Your task to perform on an android device: delete browsing data in the chrome app Image 0: 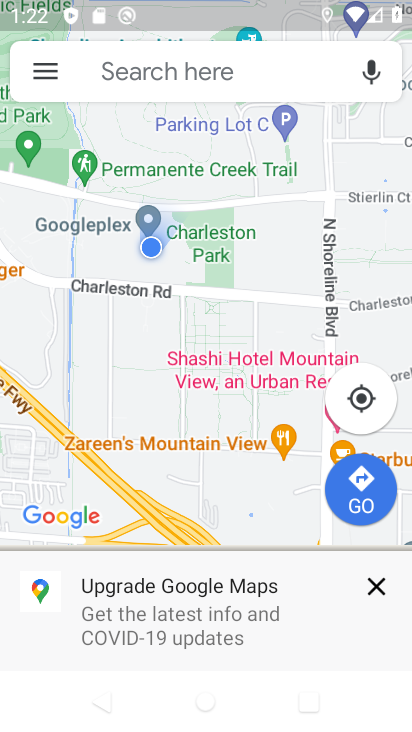
Step 0: press home button
Your task to perform on an android device: delete browsing data in the chrome app Image 1: 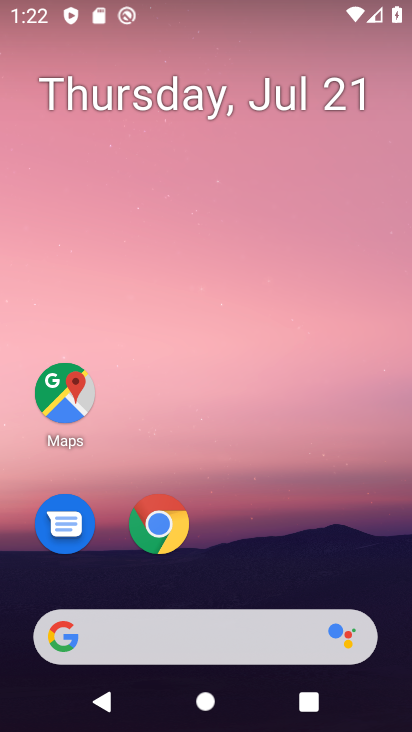
Step 1: drag from (247, 533) to (329, 69)
Your task to perform on an android device: delete browsing data in the chrome app Image 2: 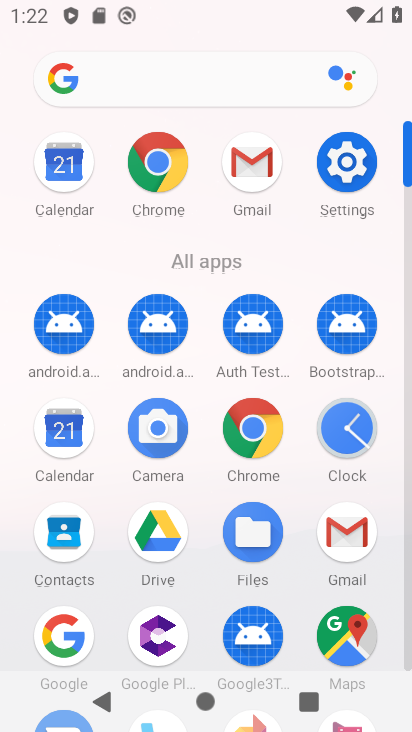
Step 2: click (159, 167)
Your task to perform on an android device: delete browsing data in the chrome app Image 3: 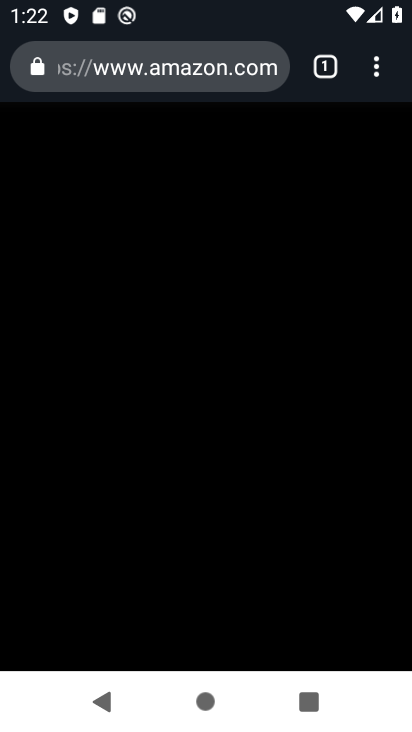
Step 3: click (374, 72)
Your task to perform on an android device: delete browsing data in the chrome app Image 4: 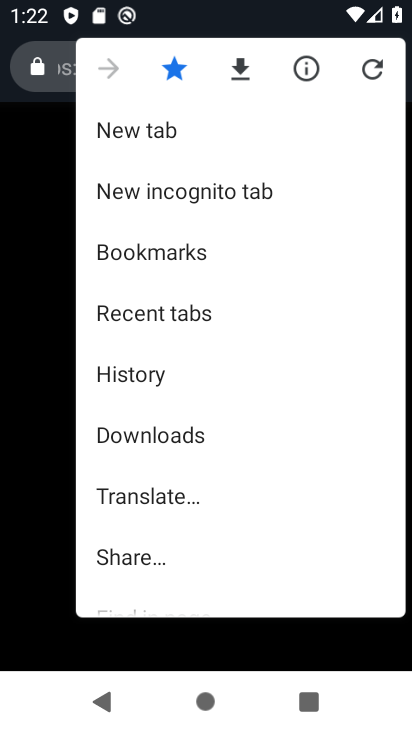
Step 4: click (136, 374)
Your task to perform on an android device: delete browsing data in the chrome app Image 5: 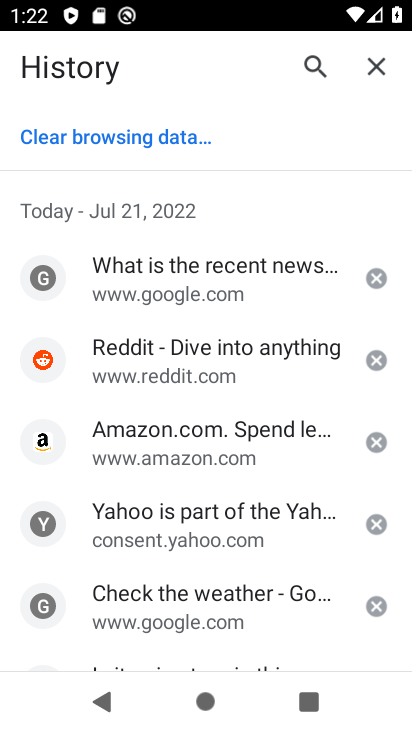
Step 5: click (139, 141)
Your task to perform on an android device: delete browsing data in the chrome app Image 6: 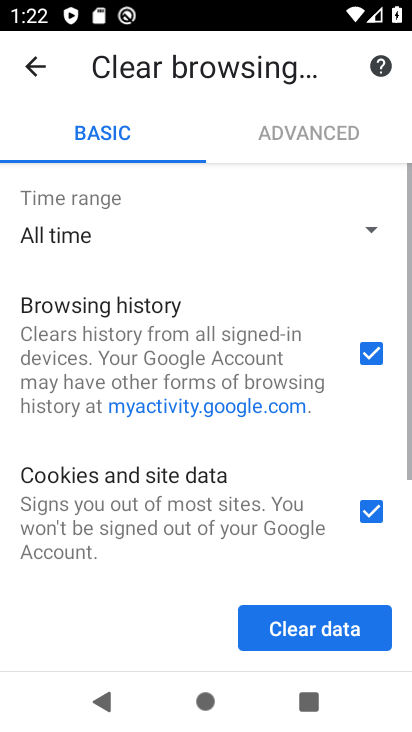
Step 6: drag from (260, 446) to (277, 196)
Your task to perform on an android device: delete browsing data in the chrome app Image 7: 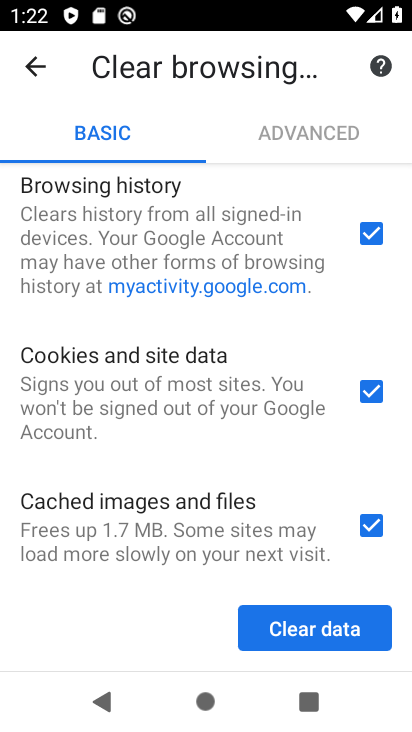
Step 7: click (303, 619)
Your task to perform on an android device: delete browsing data in the chrome app Image 8: 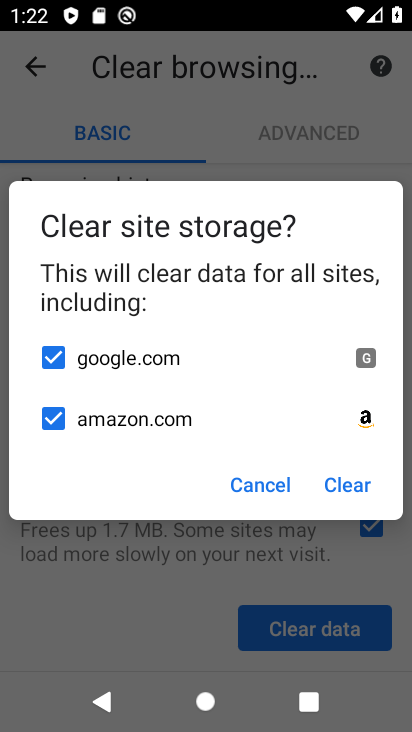
Step 8: click (354, 487)
Your task to perform on an android device: delete browsing data in the chrome app Image 9: 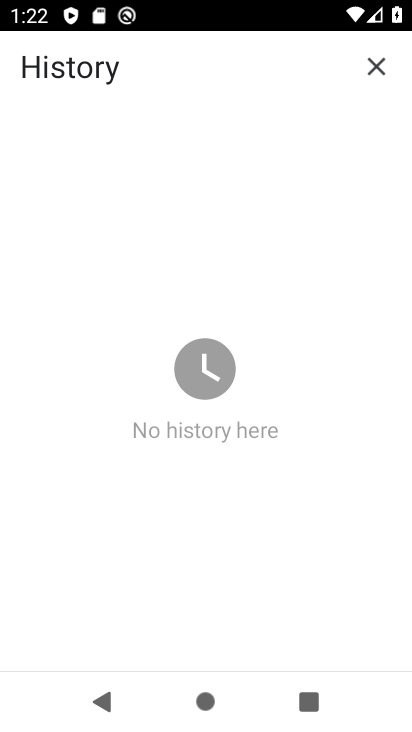
Step 9: task complete